Your task to perform on an android device: Go to Yahoo.com Image 0: 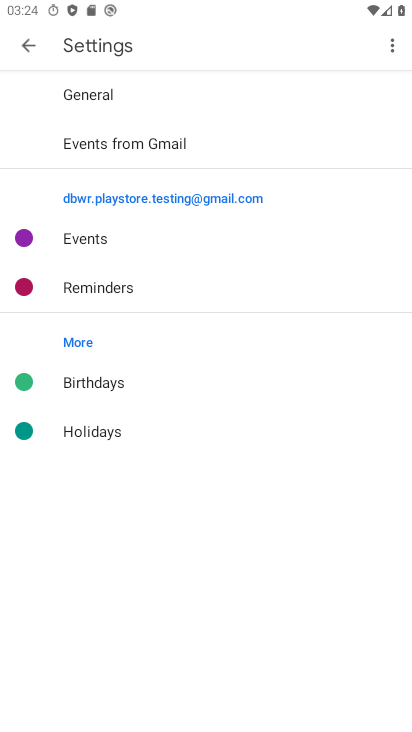
Step 0: press home button
Your task to perform on an android device: Go to Yahoo.com Image 1: 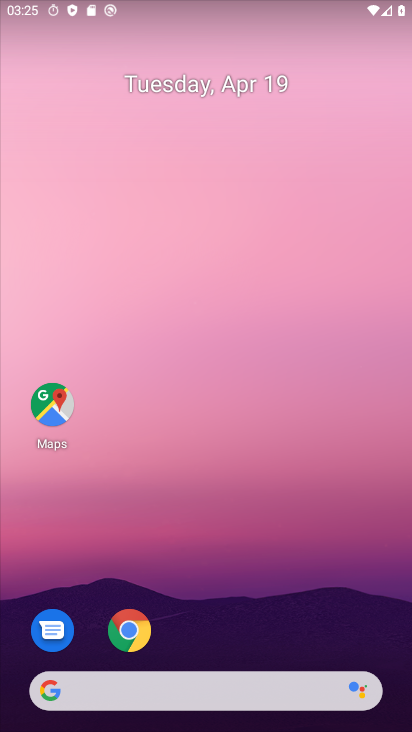
Step 1: drag from (257, 444) to (235, 191)
Your task to perform on an android device: Go to Yahoo.com Image 2: 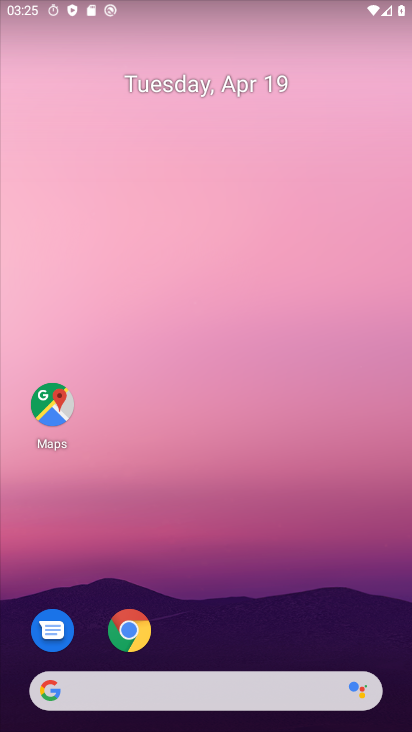
Step 2: drag from (240, 439) to (281, 38)
Your task to perform on an android device: Go to Yahoo.com Image 3: 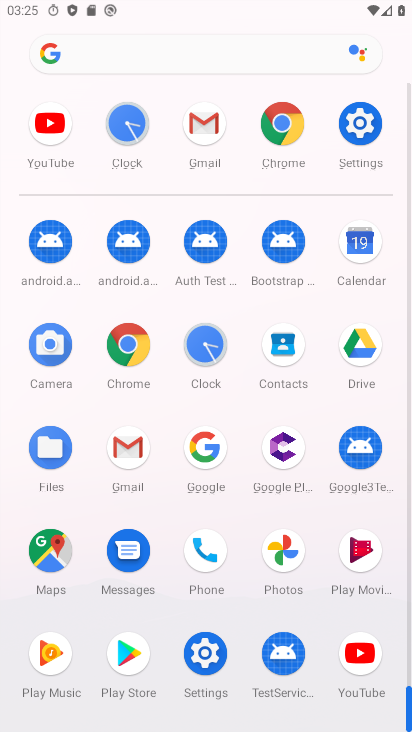
Step 3: click (286, 126)
Your task to perform on an android device: Go to Yahoo.com Image 4: 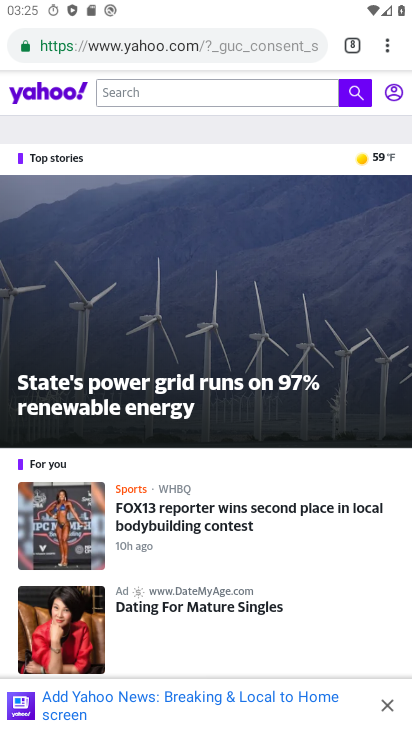
Step 4: task complete